Your task to perform on an android device: Open Youtube and go to the subscriptions tab Image 0: 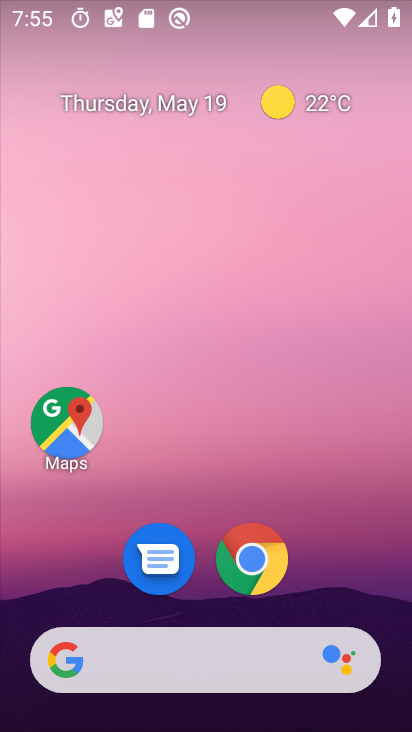
Step 0: drag from (325, 602) to (357, 59)
Your task to perform on an android device: Open Youtube and go to the subscriptions tab Image 1: 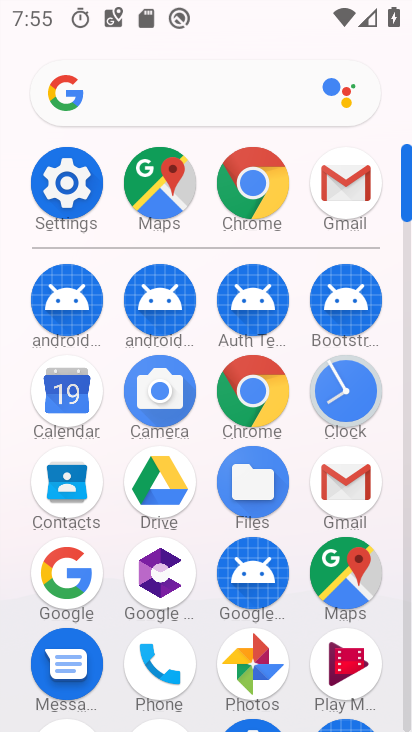
Step 1: drag from (280, 533) to (302, 144)
Your task to perform on an android device: Open Youtube and go to the subscriptions tab Image 2: 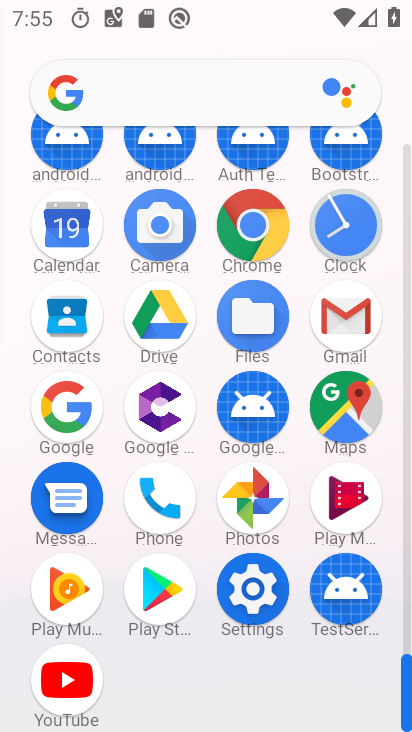
Step 2: click (50, 677)
Your task to perform on an android device: Open Youtube and go to the subscriptions tab Image 3: 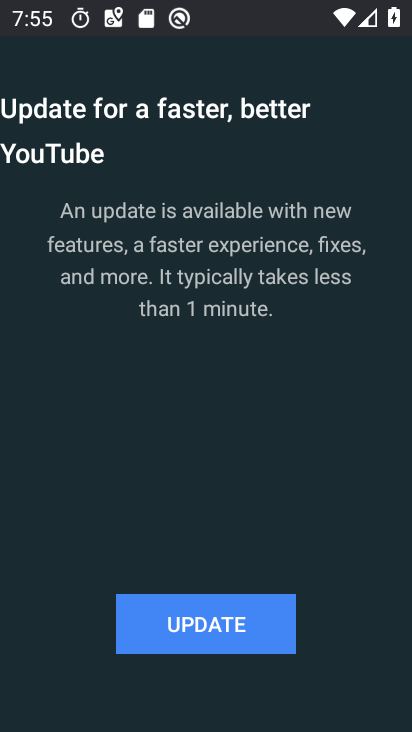
Step 3: click (170, 619)
Your task to perform on an android device: Open Youtube and go to the subscriptions tab Image 4: 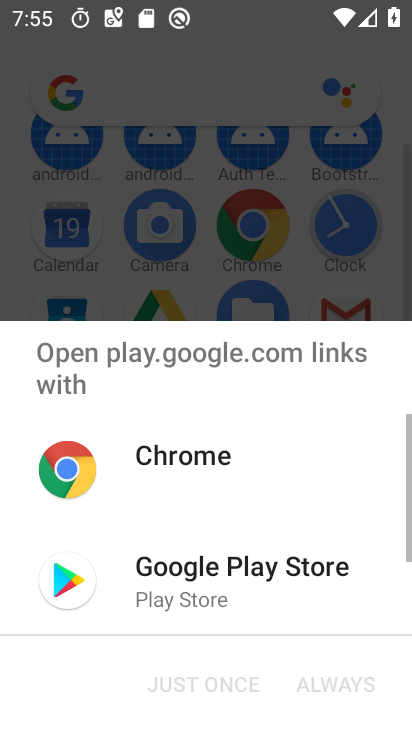
Step 4: click (183, 576)
Your task to perform on an android device: Open Youtube and go to the subscriptions tab Image 5: 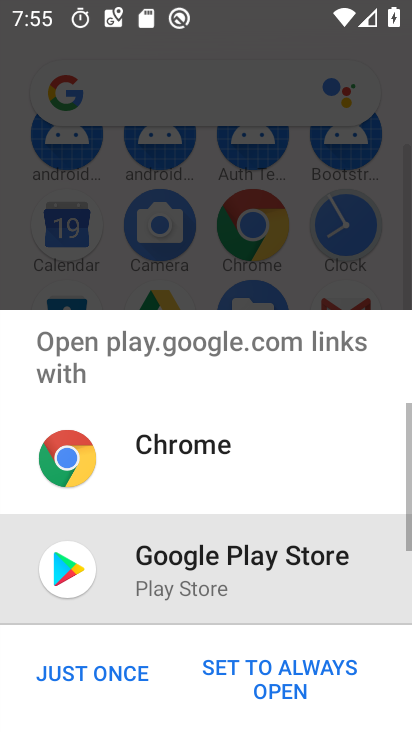
Step 5: click (62, 671)
Your task to perform on an android device: Open Youtube and go to the subscriptions tab Image 6: 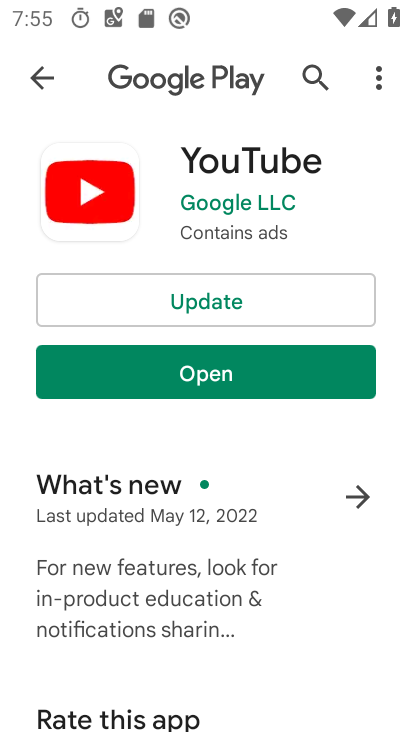
Step 6: click (201, 304)
Your task to perform on an android device: Open Youtube and go to the subscriptions tab Image 7: 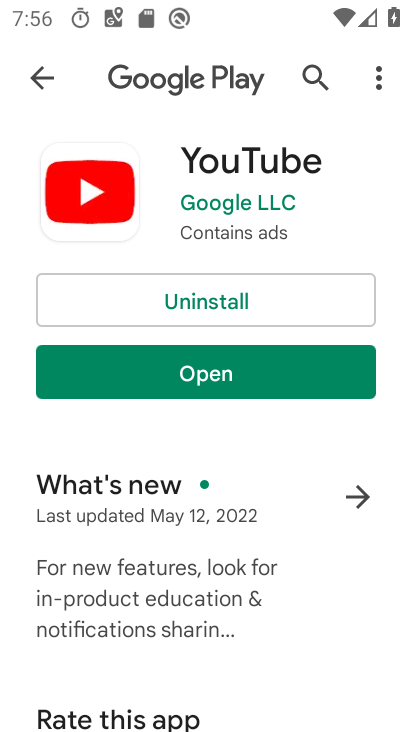
Step 7: click (191, 367)
Your task to perform on an android device: Open Youtube and go to the subscriptions tab Image 8: 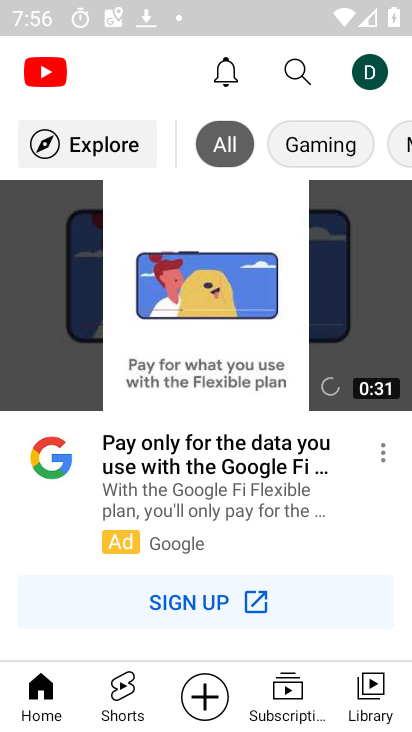
Step 8: click (238, 691)
Your task to perform on an android device: Open Youtube and go to the subscriptions tab Image 9: 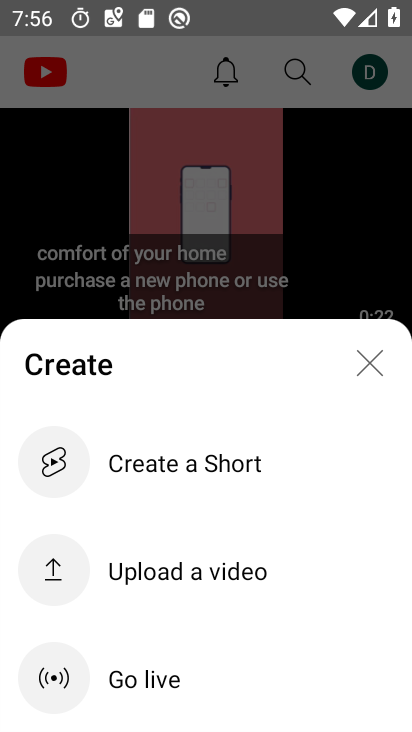
Step 9: click (359, 357)
Your task to perform on an android device: Open Youtube and go to the subscriptions tab Image 10: 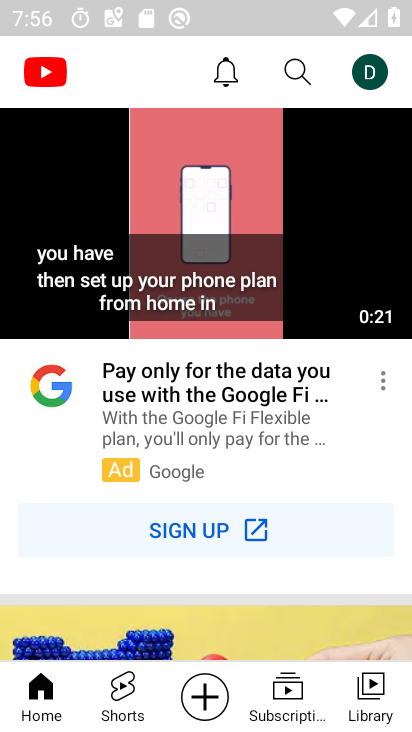
Step 10: click (280, 687)
Your task to perform on an android device: Open Youtube and go to the subscriptions tab Image 11: 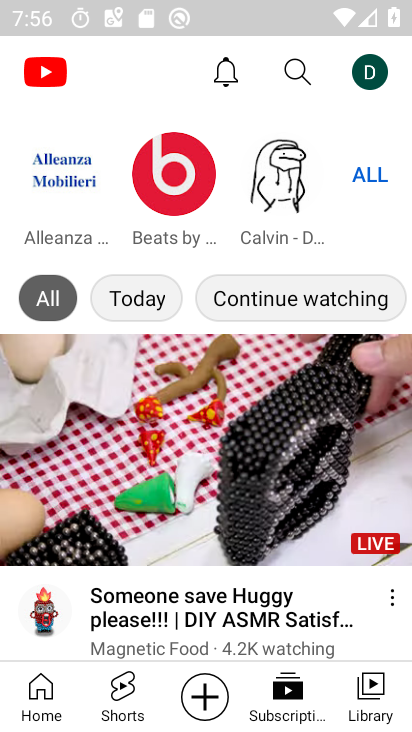
Step 11: task complete